Your task to perform on an android device: move an email to a new category in the gmail app Image 0: 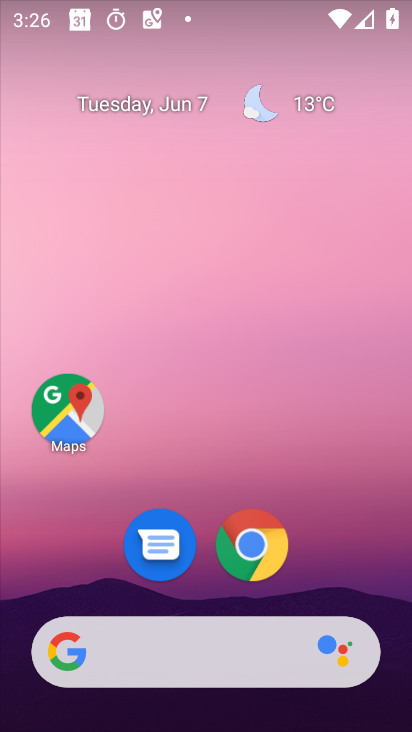
Step 0: drag from (319, 423) to (132, 0)
Your task to perform on an android device: move an email to a new category in the gmail app Image 1: 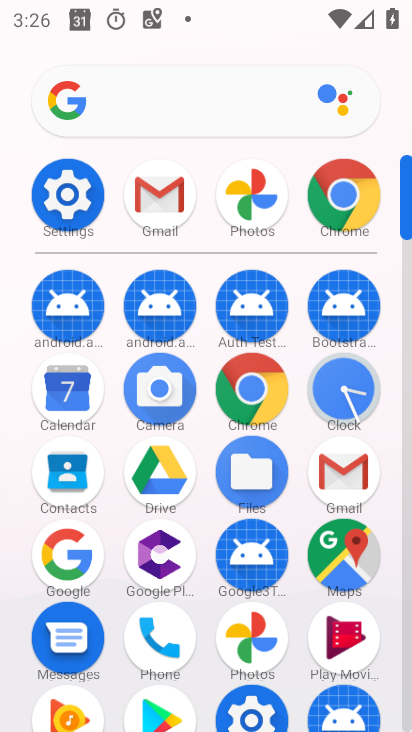
Step 1: click (339, 465)
Your task to perform on an android device: move an email to a new category in the gmail app Image 2: 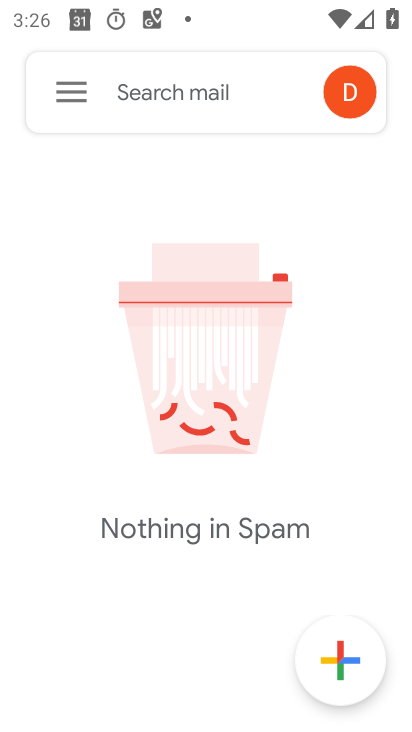
Step 2: click (66, 90)
Your task to perform on an android device: move an email to a new category in the gmail app Image 3: 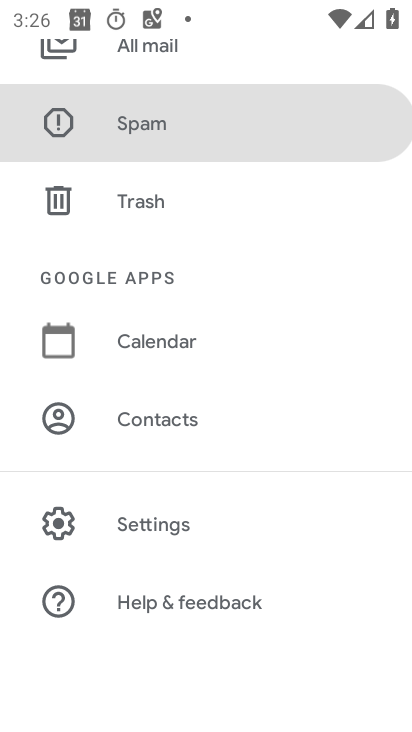
Step 3: drag from (189, 181) to (189, 327)
Your task to perform on an android device: move an email to a new category in the gmail app Image 4: 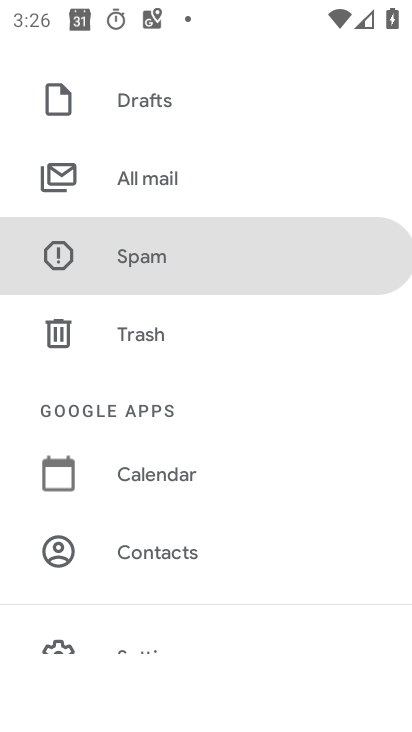
Step 4: click (166, 185)
Your task to perform on an android device: move an email to a new category in the gmail app Image 5: 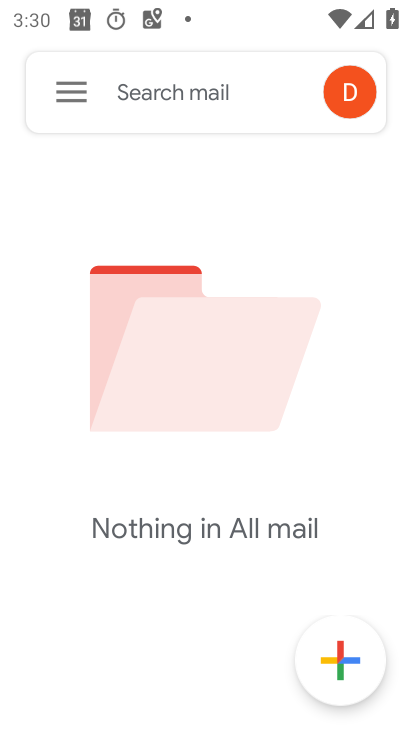
Step 5: task complete